Your task to perform on an android device: Is it going to rain today? Image 0: 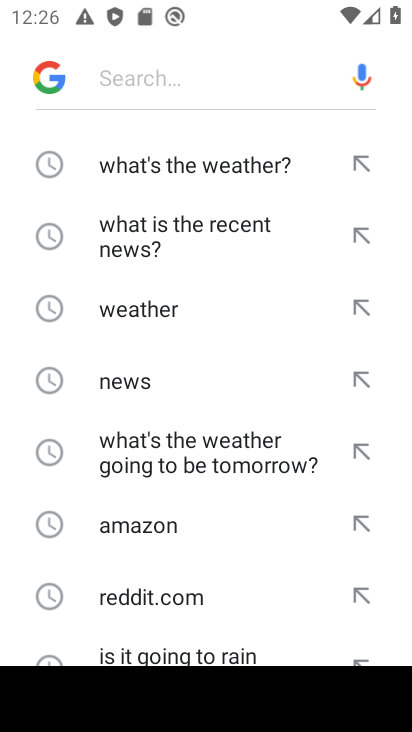
Step 0: click (152, 305)
Your task to perform on an android device: Is it going to rain today? Image 1: 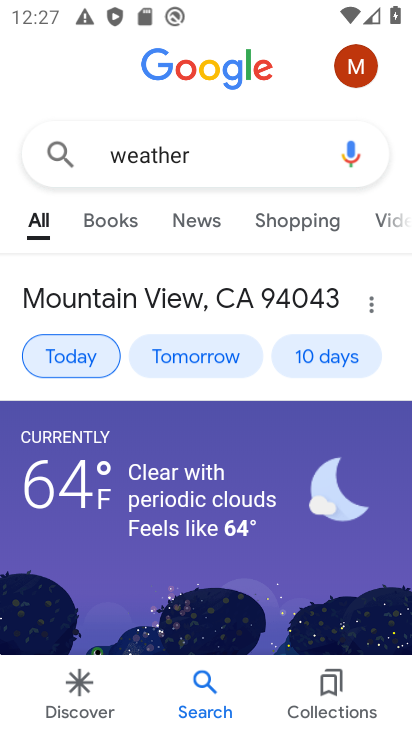
Step 1: task complete